Your task to perform on an android device: Go to ESPN.com Image 0: 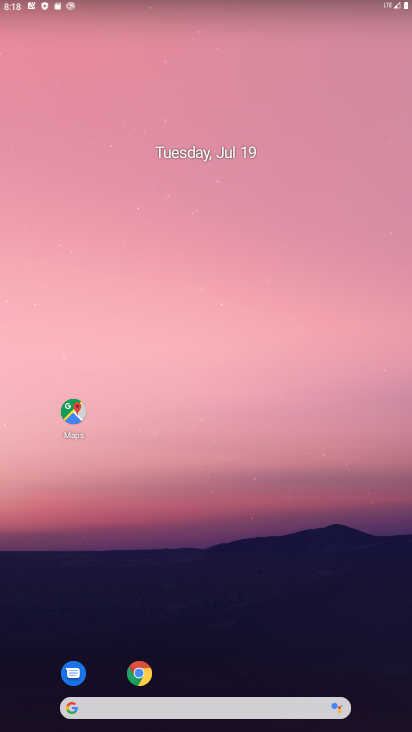
Step 0: drag from (370, 688) to (248, 28)
Your task to perform on an android device: Go to ESPN.com Image 1: 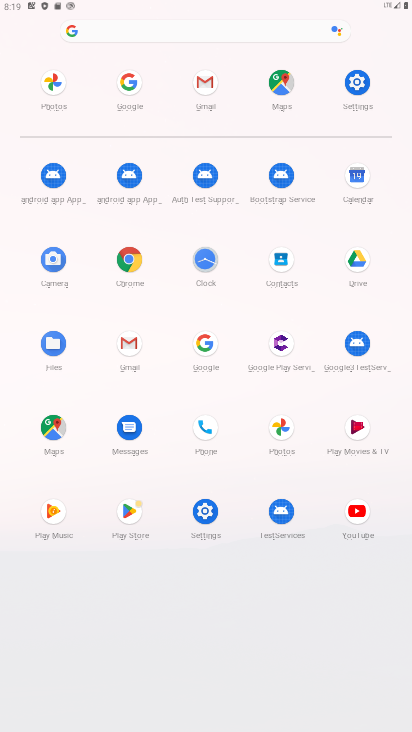
Step 1: click (204, 346)
Your task to perform on an android device: Go to ESPN.com Image 2: 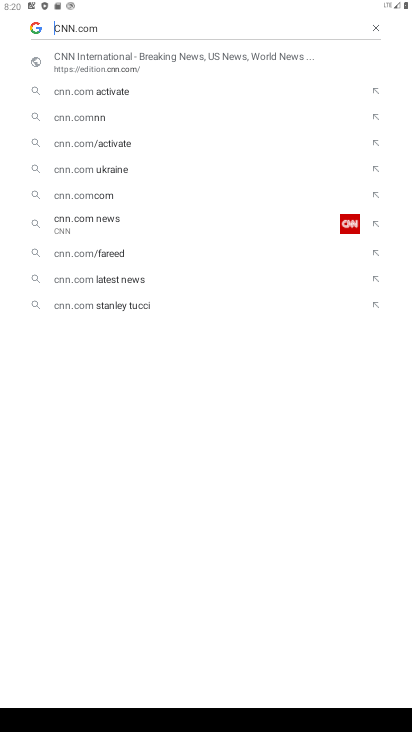
Step 2: click (377, 23)
Your task to perform on an android device: Go to ESPN.com Image 3: 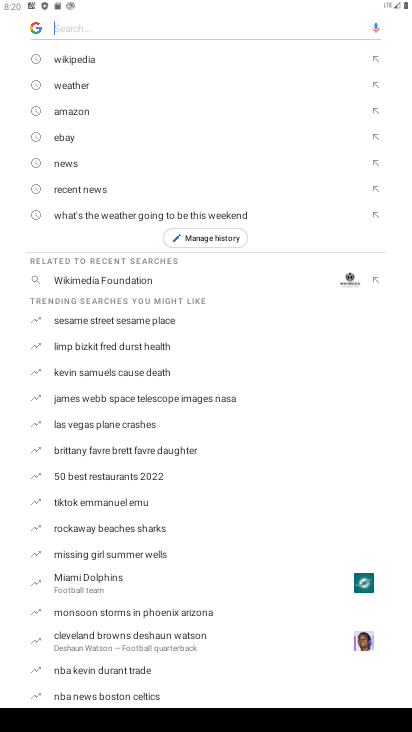
Step 3: type "ESPN.com"
Your task to perform on an android device: Go to ESPN.com Image 4: 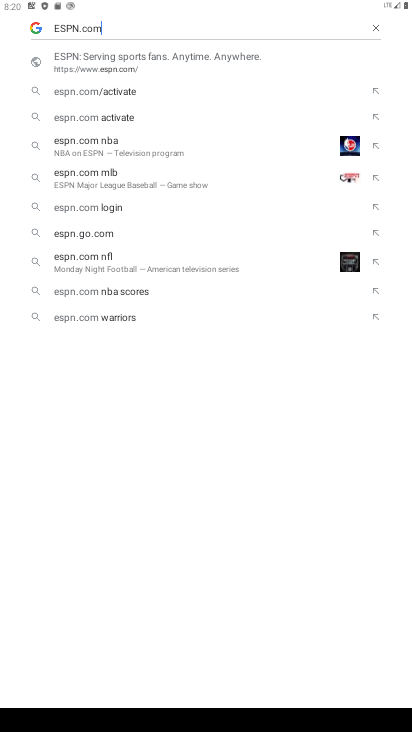
Step 4: click (102, 57)
Your task to perform on an android device: Go to ESPN.com Image 5: 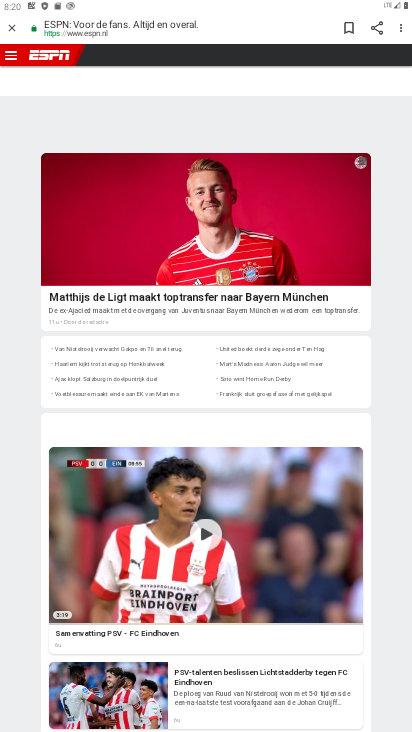
Step 5: task complete